Your task to perform on an android device: open app "Messages" (install if not already installed) Image 0: 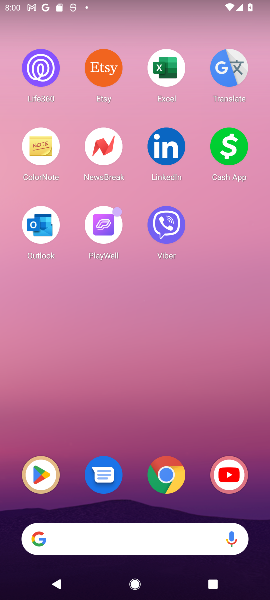
Step 0: task impossible